Your task to perform on an android device: Open Amazon Image 0: 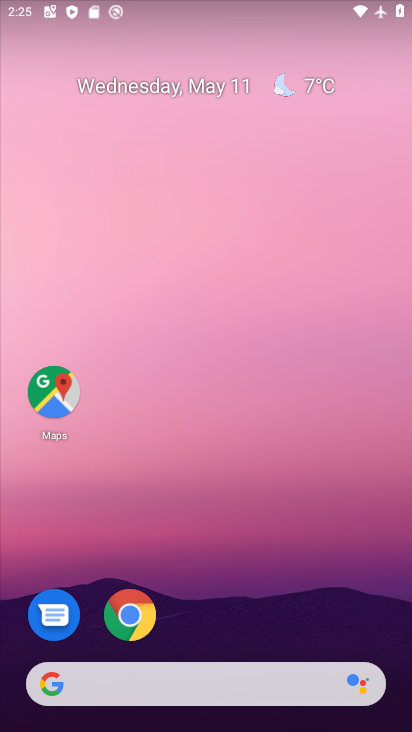
Step 0: drag from (289, 595) to (240, 266)
Your task to perform on an android device: Open Amazon Image 1: 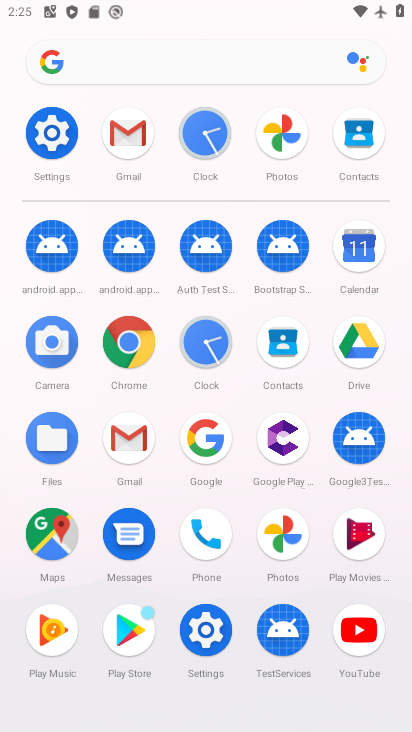
Step 1: click (128, 340)
Your task to perform on an android device: Open Amazon Image 2: 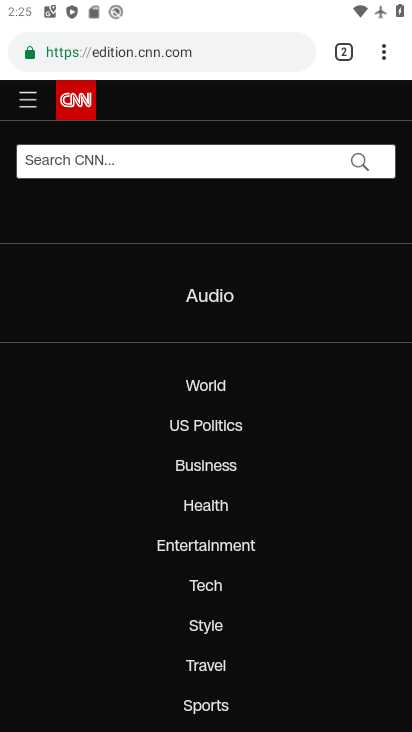
Step 2: click (207, 44)
Your task to perform on an android device: Open Amazon Image 3: 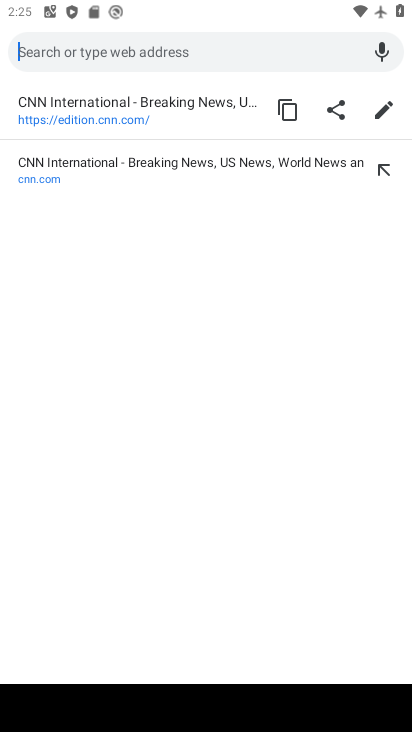
Step 3: type "amazon"
Your task to perform on an android device: Open Amazon Image 4: 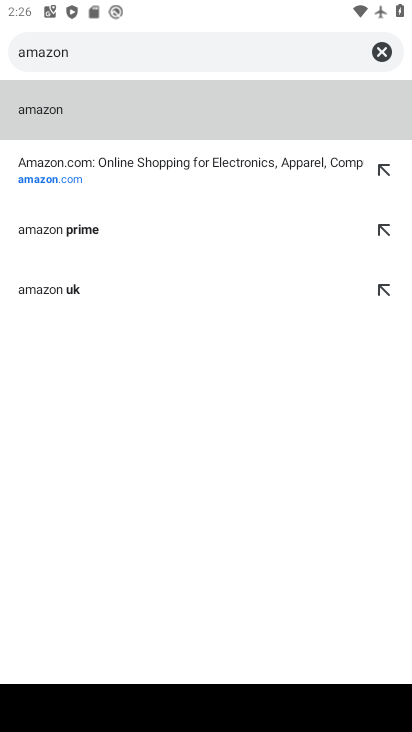
Step 4: click (51, 103)
Your task to perform on an android device: Open Amazon Image 5: 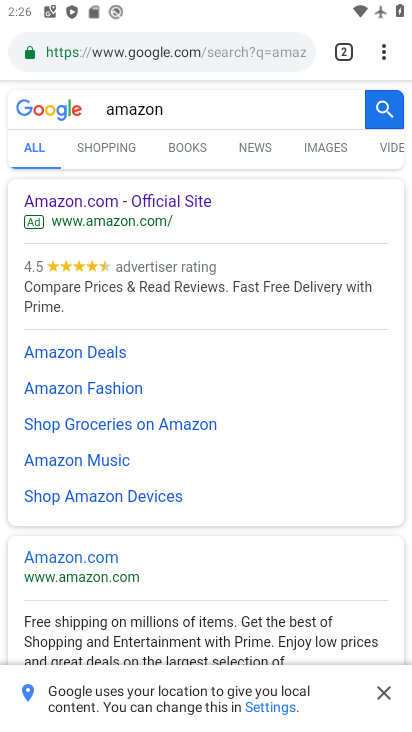
Step 5: click (97, 555)
Your task to perform on an android device: Open Amazon Image 6: 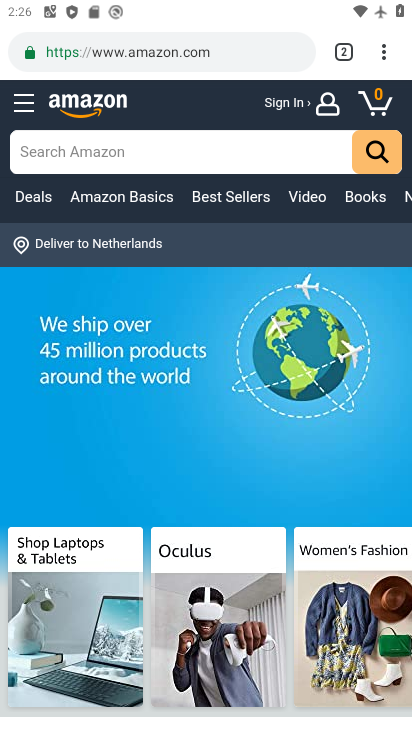
Step 6: task complete